Your task to perform on an android device: Is it going to rain today? Image 0: 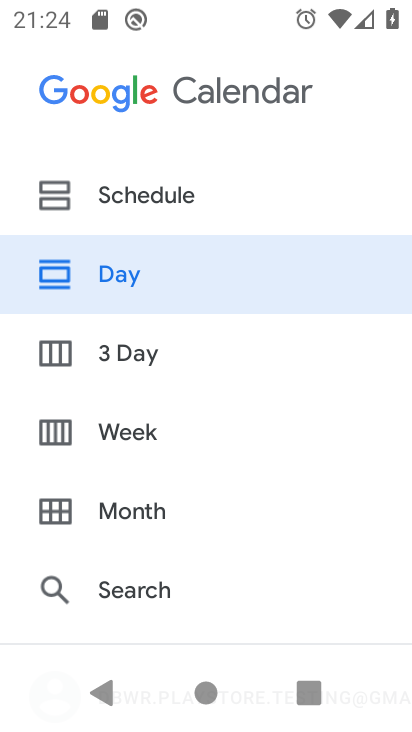
Step 0: press home button
Your task to perform on an android device: Is it going to rain today? Image 1: 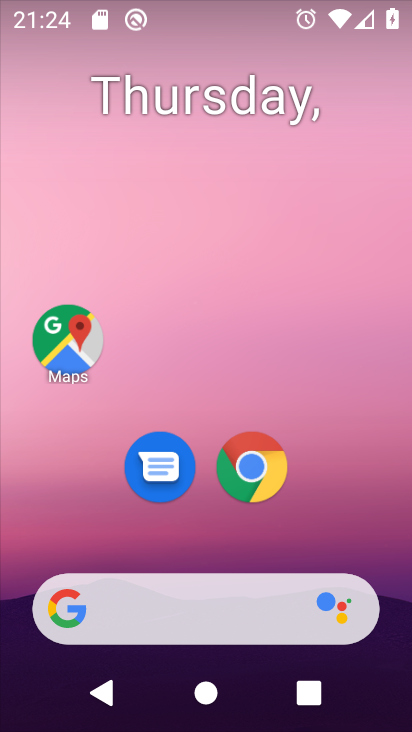
Step 1: click (247, 463)
Your task to perform on an android device: Is it going to rain today? Image 2: 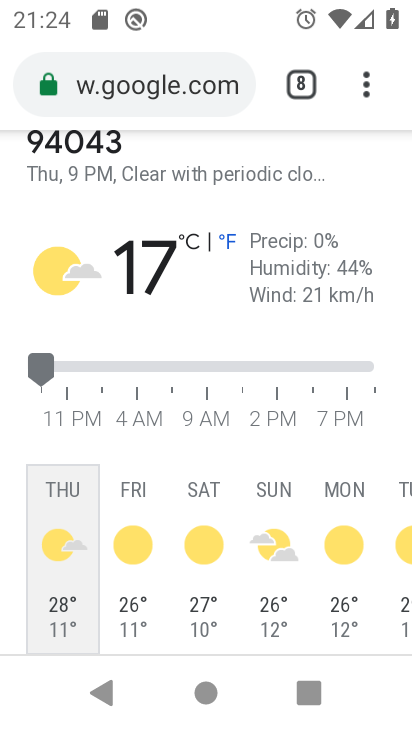
Step 2: click (371, 76)
Your task to perform on an android device: Is it going to rain today? Image 3: 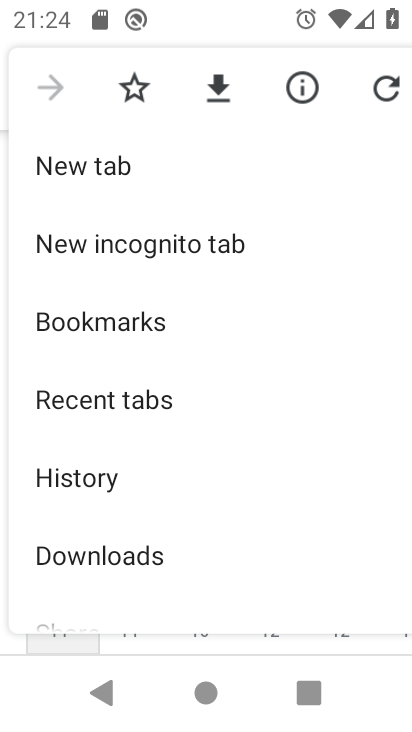
Step 3: click (111, 159)
Your task to perform on an android device: Is it going to rain today? Image 4: 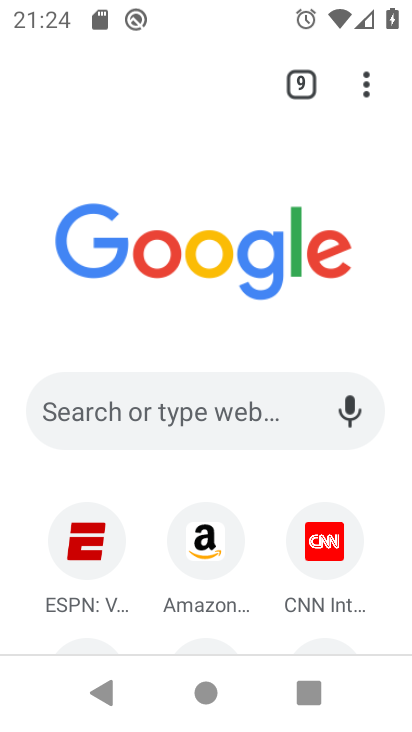
Step 4: click (210, 419)
Your task to perform on an android device: Is it going to rain today? Image 5: 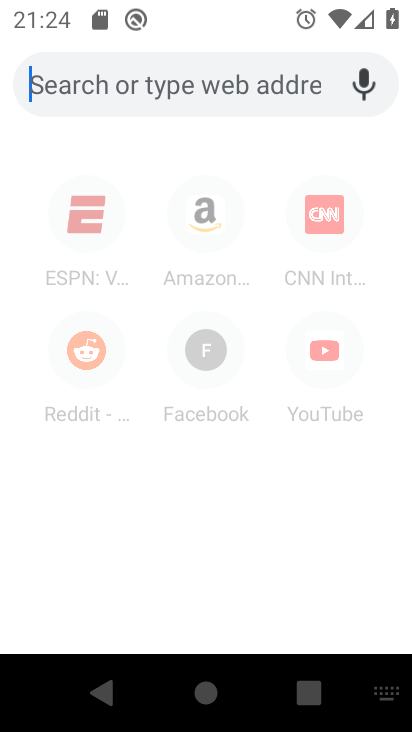
Step 5: type "Is it going to rain today?"
Your task to perform on an android device: Is it going to rain today? Image 6: 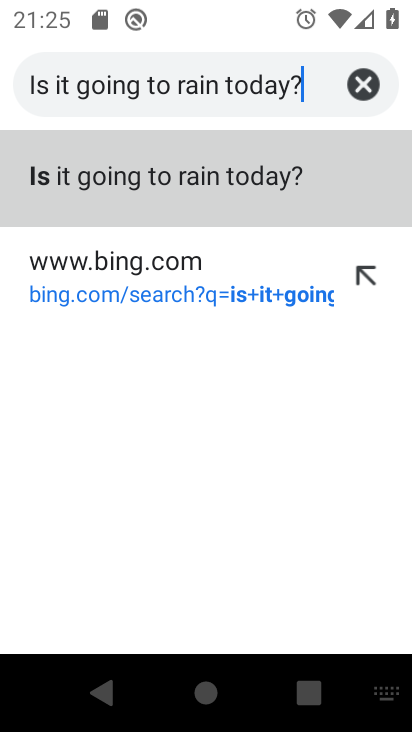
Step 6: click (201, 176)
Your task to perform on an android device: Is it going to rain today? Image 7: 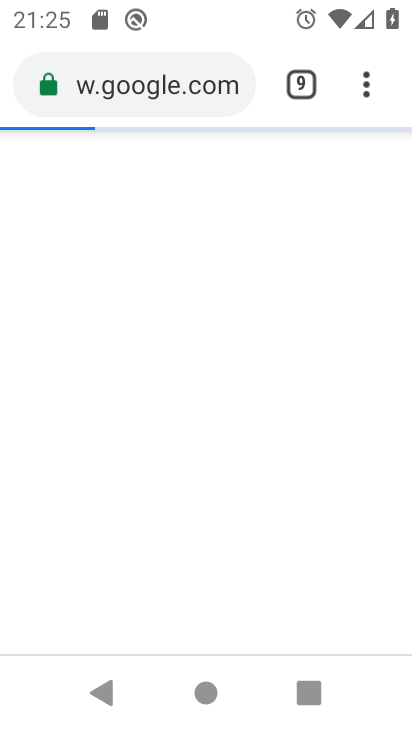
Step 7: task complete